Your task to perform on an android device: empty trash in the gmail app Image 0: 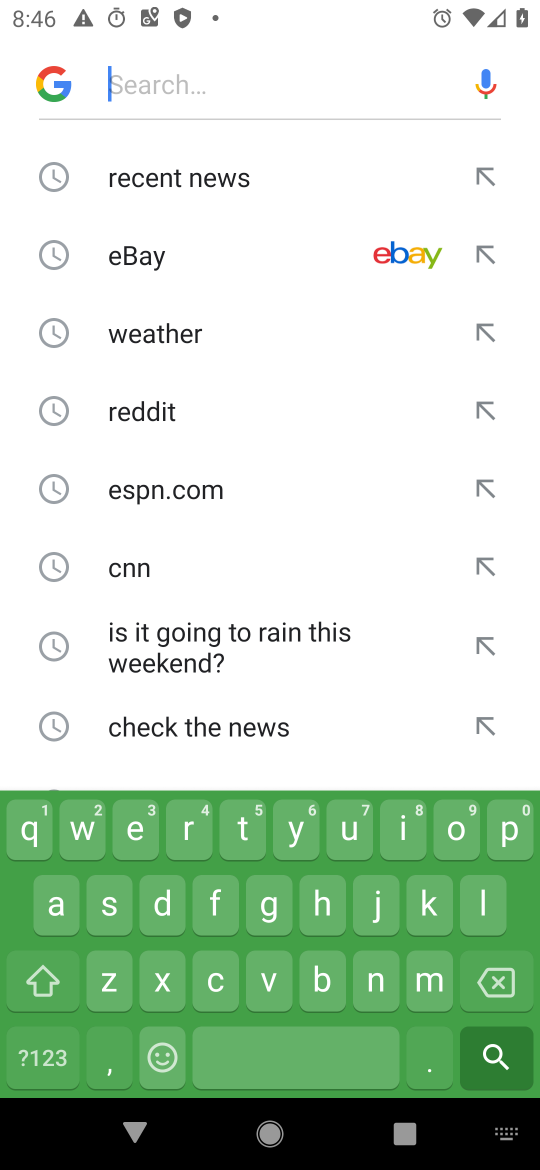
Step 0: press home button
Your task to perform on an android device: empty trash in the gmail app Image 1: 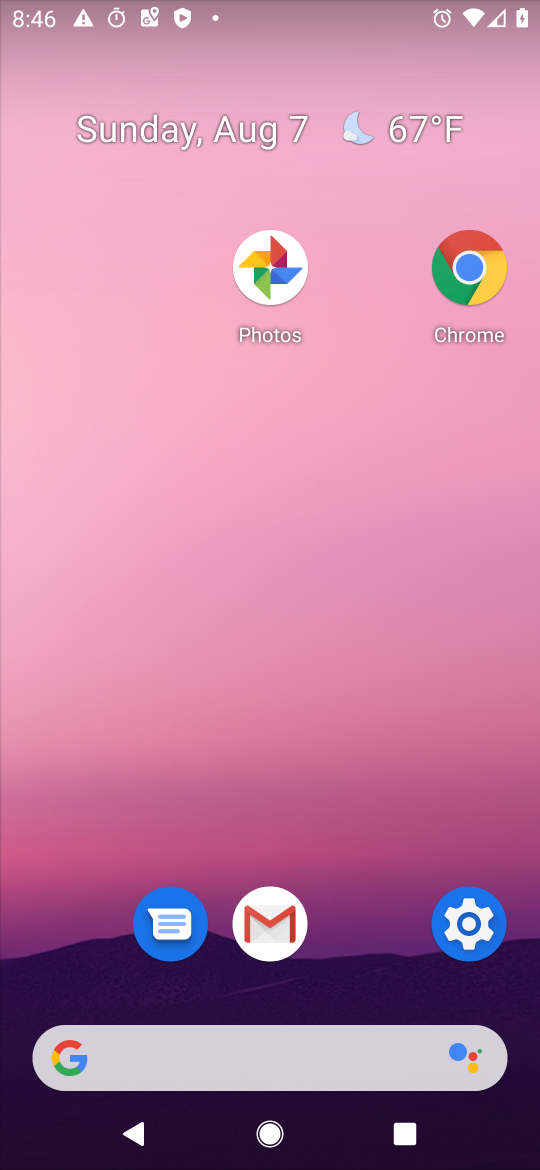
Step 1: drag from (385, 1093) to (447, 199)
Your task to perform on an android device: empty trash in the gmail app Image 2: 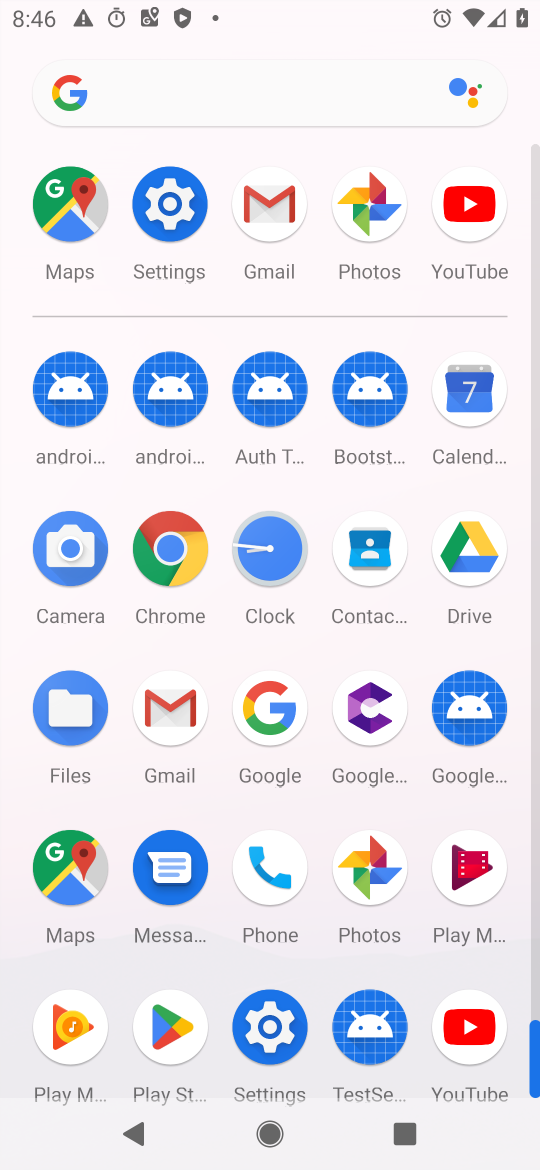
Step 2: click (252, 223)
Your task to perform on an android device: empty trash in the gmail app Image 3: 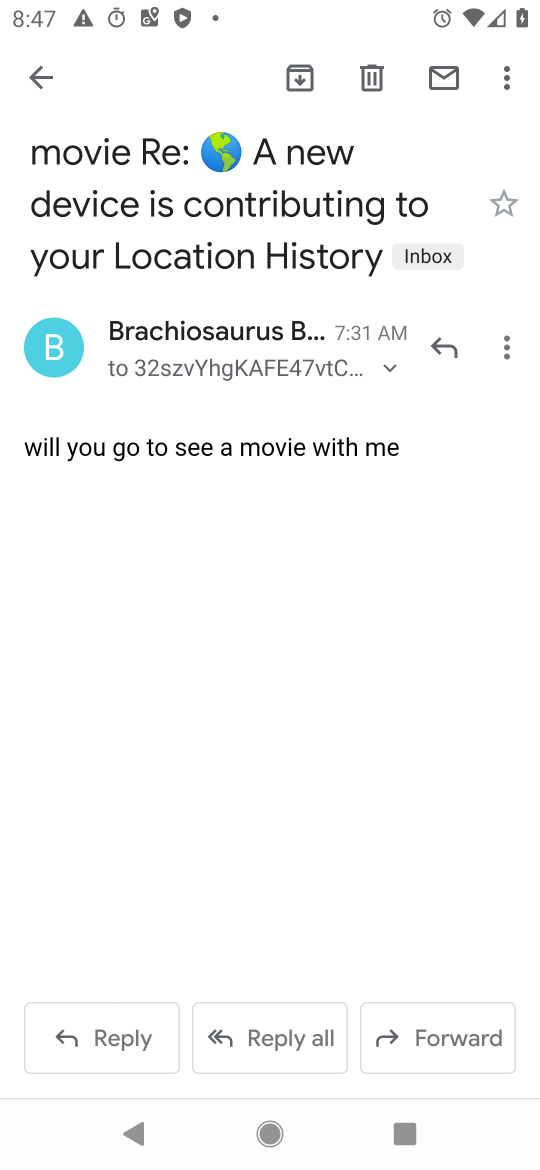
Step 3: click (49, 94)
Your task to perform on an android device: empty trash in the gmail app Image 4: 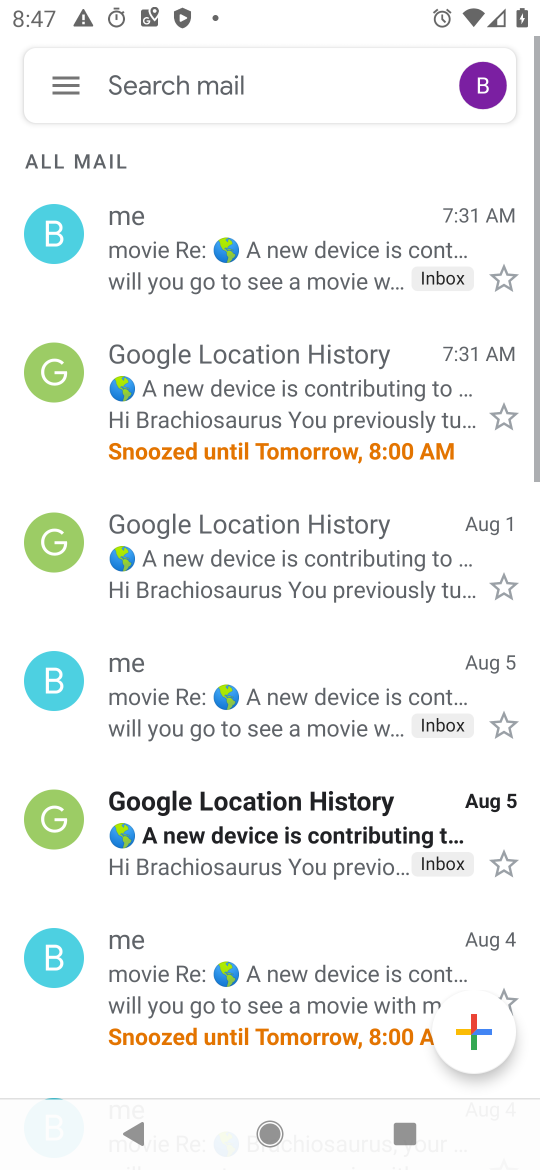
Step 4: click (65, 82)
Your task to perform on an android device: empty trash in the gmail app Image 5: 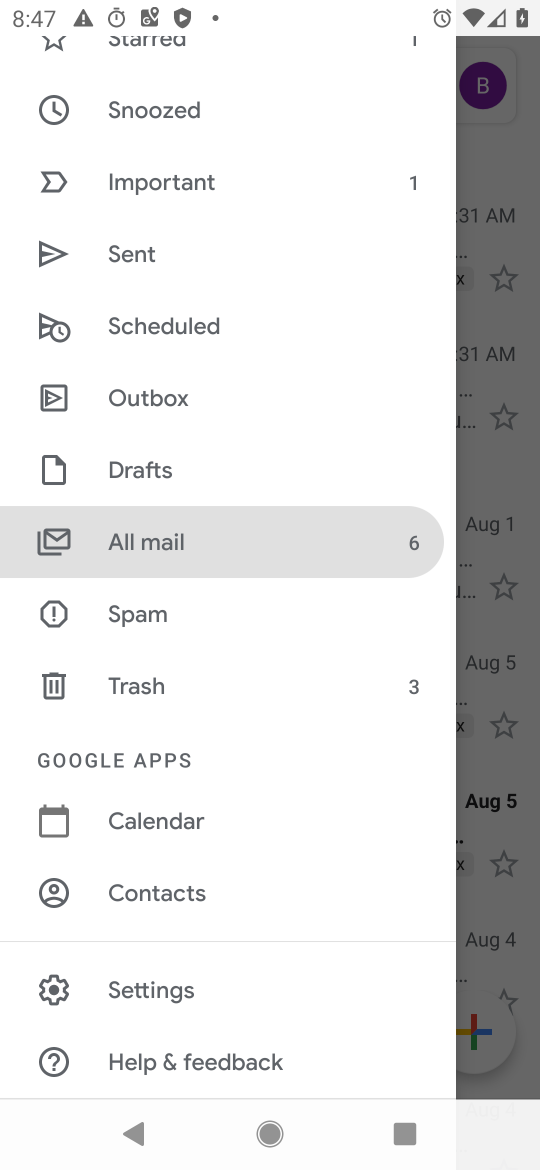
Step 5: click (163, 684)
Your task to perform on an android device: empty trash in the gmail app Image 6: 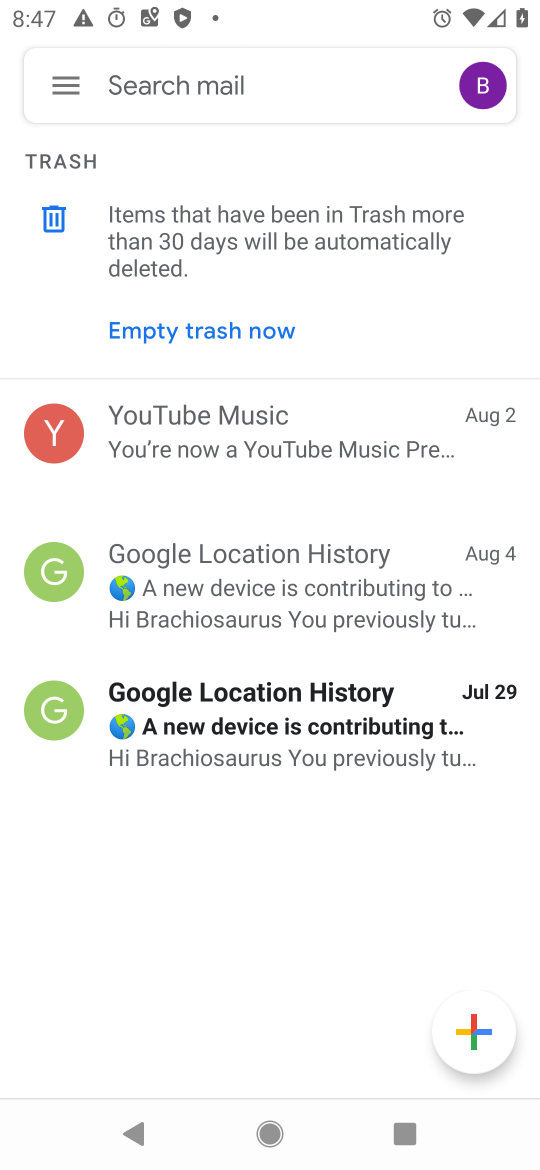
Step 6: click (242, 321)
Your task to perform on an android device: empty trash in the gmail app Image 7: 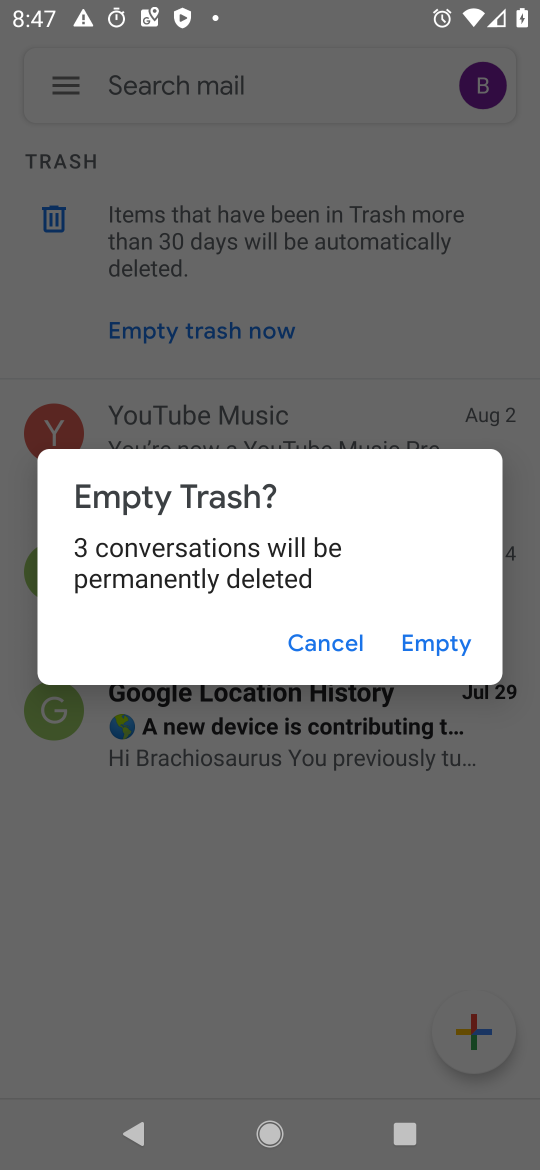
Step 7: click (433, 647)
Your task to perform on an android device: empty trash in the gmail app Image 8: 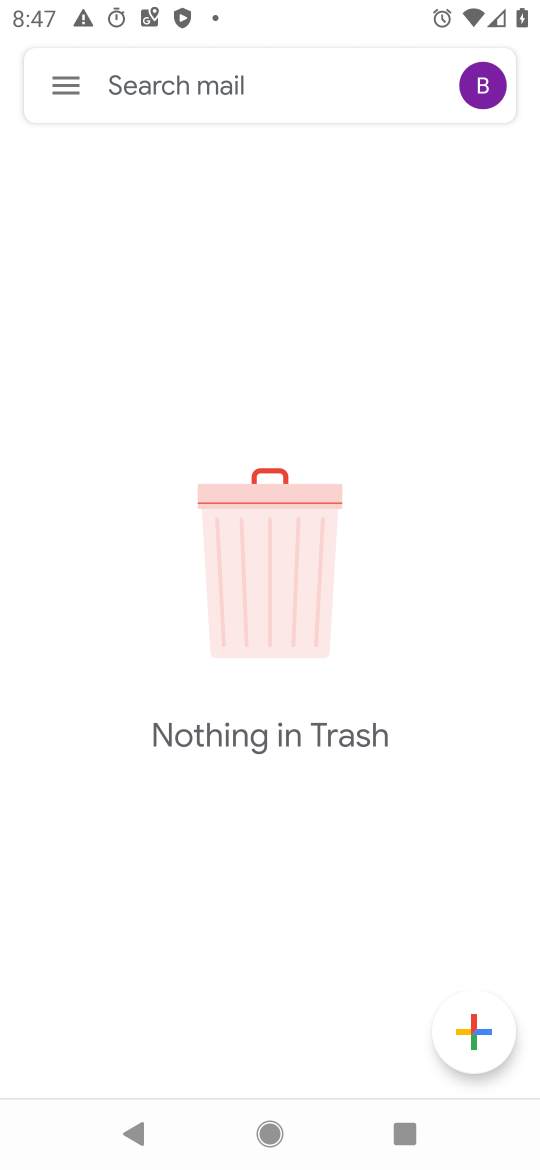
Step 8: task complete